Your task to perform on an android device: Go to Android settings Image 0: 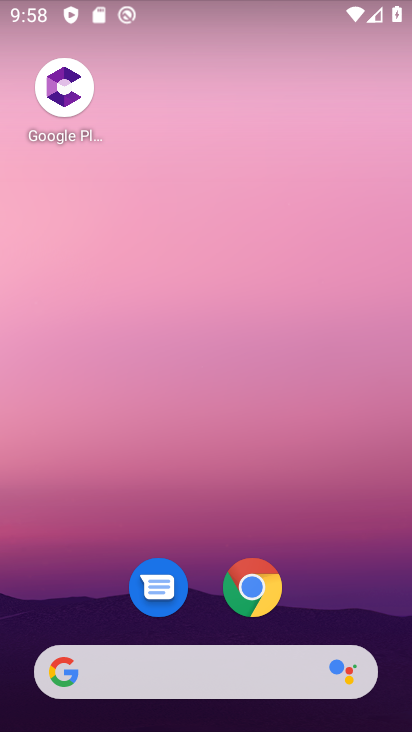
Step 0: drag from (343, 490) to (341, 54)
Your task to perform on an android device: Go to Android settings Image 1: 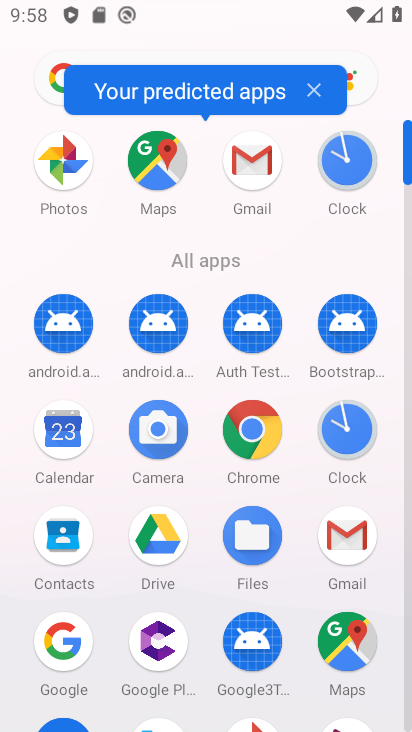
Step 1: click (407, 709)
Your task to perform on an android device: Go to Android settings Image 2: 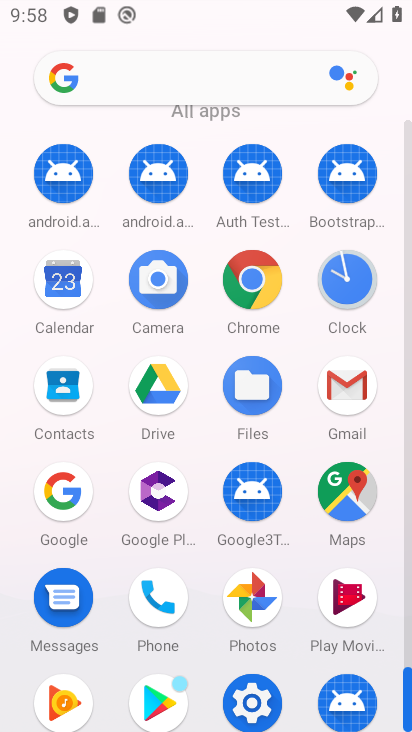
Step 2: click (260, 704)
Your task to perform on an android device: Go to Android settings Image 3: 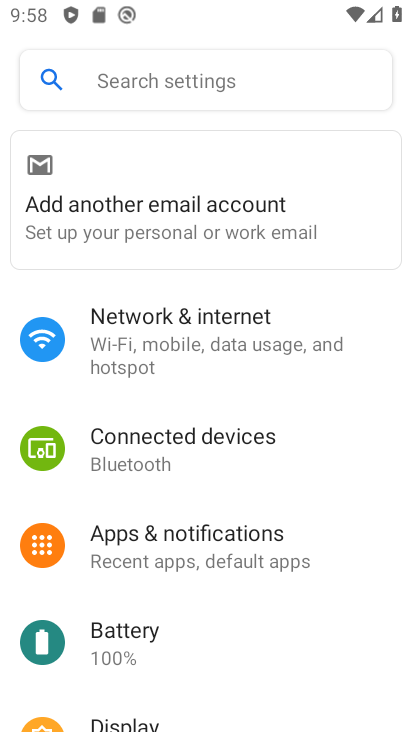
Step 3: task complete